Your task to perform on an android device: turn on notifications settings in the gmail app Image 0: 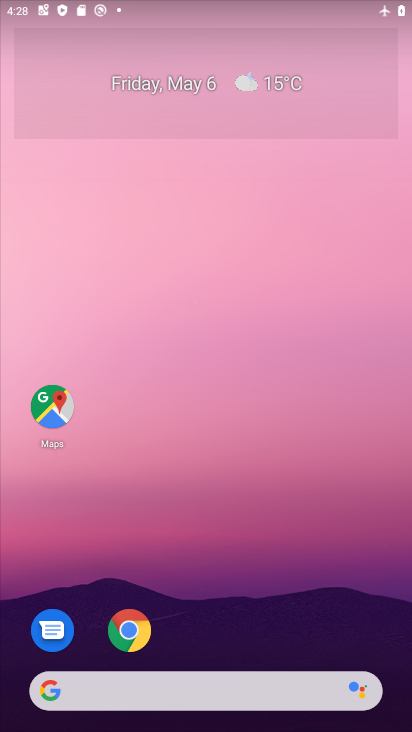
Step 0: drag from (255, 593) to (342, 91)
Your task to perform on an android device: turn on notifications settings in the gmail app Image 1: 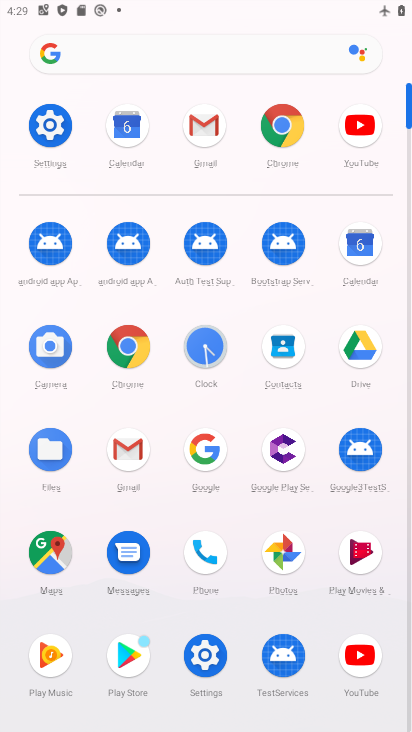
Step 1: click (202, 124)
Your task to perform on an android device: turn on notifications settings in the gmail app Image 2: 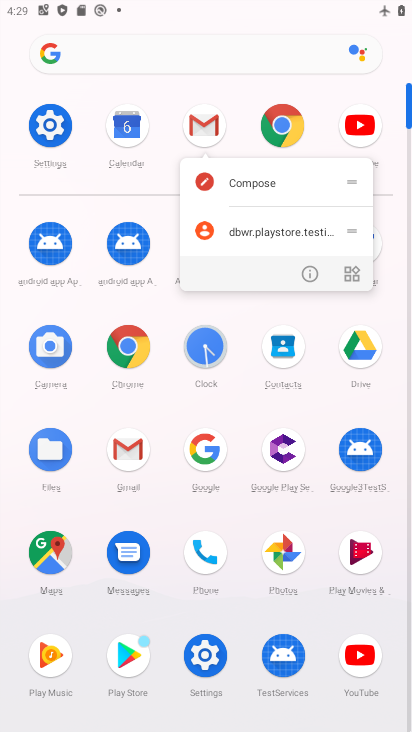
Step 2: click (319, 271)
Your task to perform on an android device: turn on notifications settings in the gmail app Image 3: 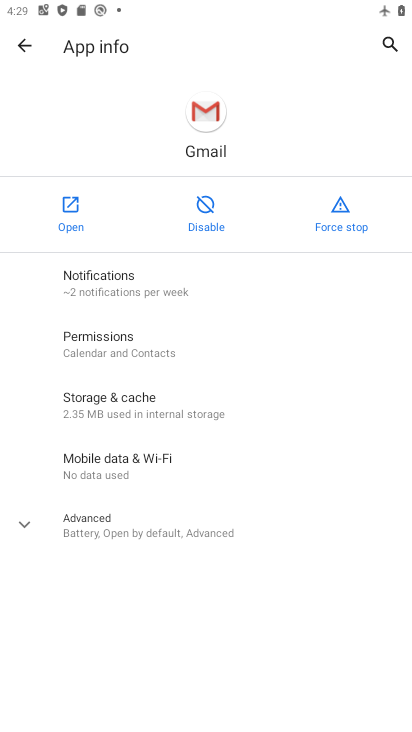
Step 3: click (126, 285)
Your task to perform on an android device: turn on notifications settings in the gmail app Image 4: 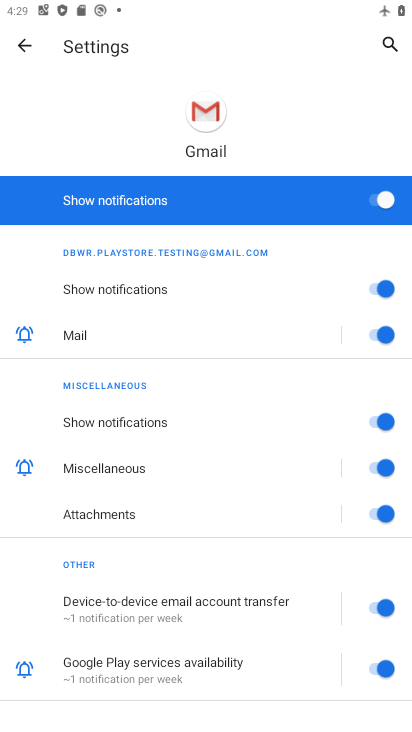
Step 4: task complete